Your task to perform on an android device: set the timer Image 0: 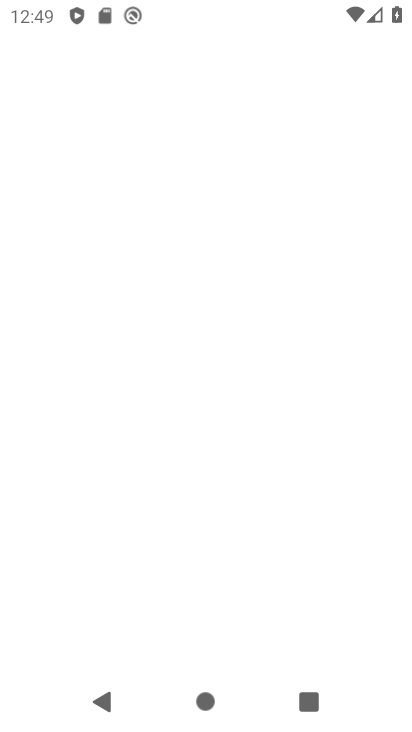
Step 0: press home button
Your task to perform on an android device: set the timer Image 1: 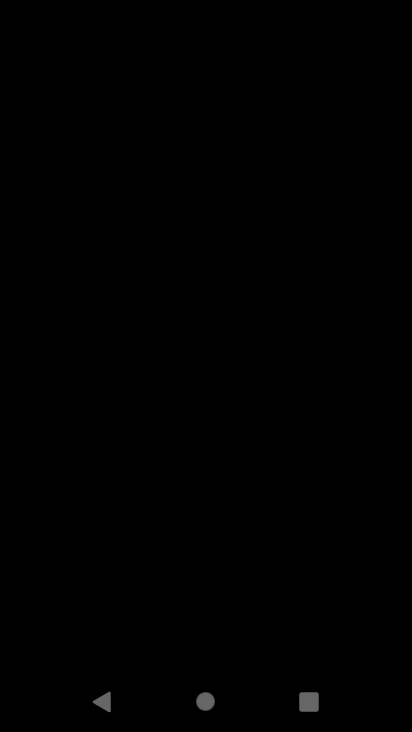
Step 1: press home button
Your task to perform on an android device: set the timer Image 2: 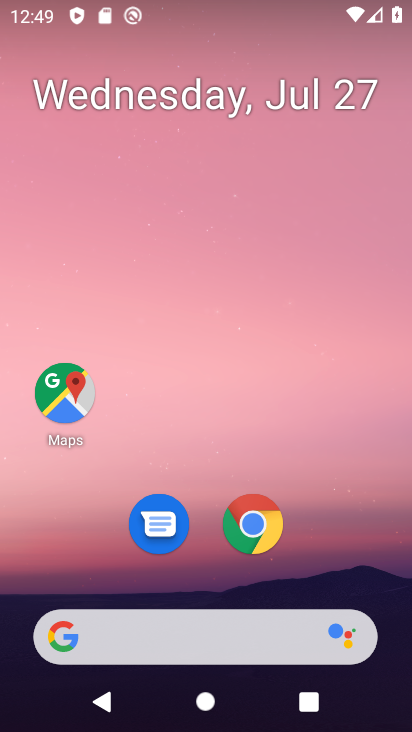
Step 2: drag from (294, 537) to (292, 75)
Your task to perform on an android device: set the timer Image 3: 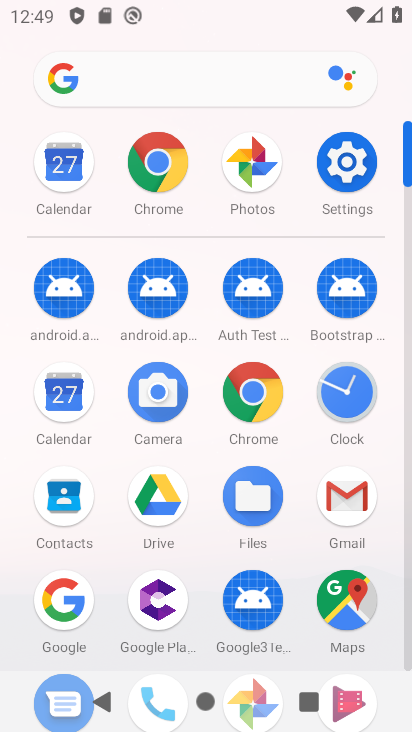
Step 3: click (354, 384)
Your task to perform on an android device: set the timer Image 4: 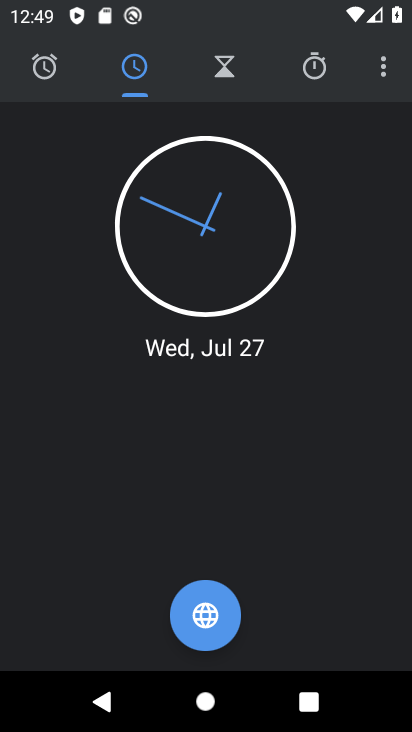
Step 4: click (225, 72)
Your task to perform on an android device: set the timer Image 5: 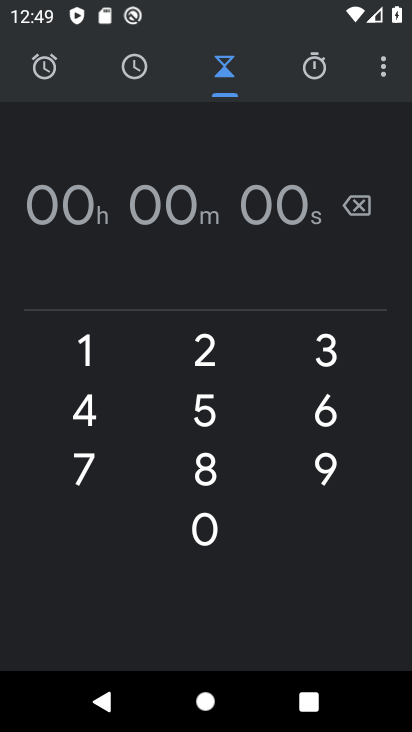
Step 5: click (86, 348)
Your task to perform on an android device: set the timer Image 6: 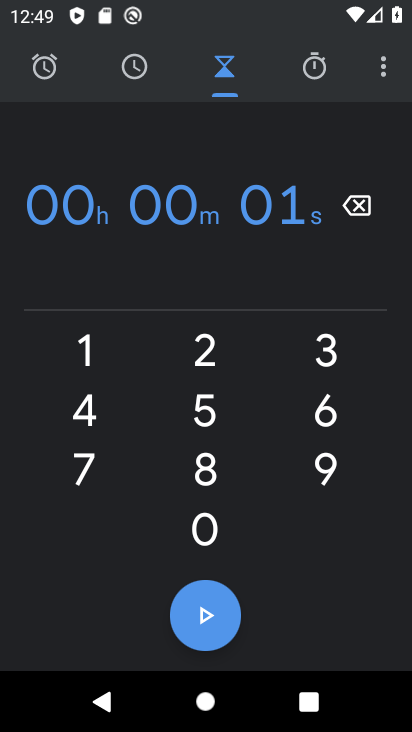
Step 6: task complete